Your task to perform on an android device: Open Google Chrome and click the shortcut for Amazon.com Image 0: 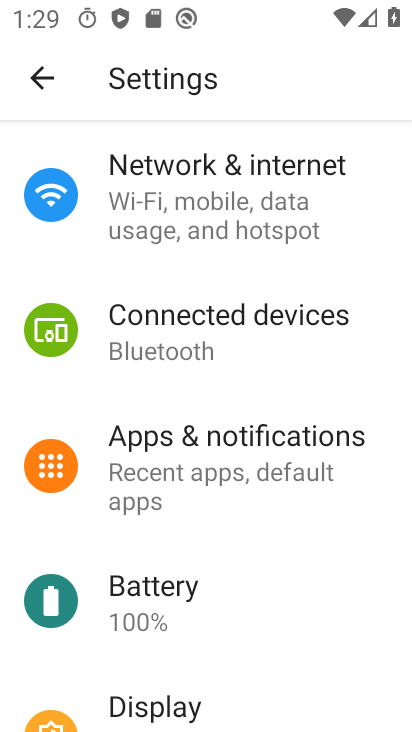
Step 0: press home button
Your task to perform on an android device: Open Google Chrome and click the shortcut for Amazon.com Image 1: 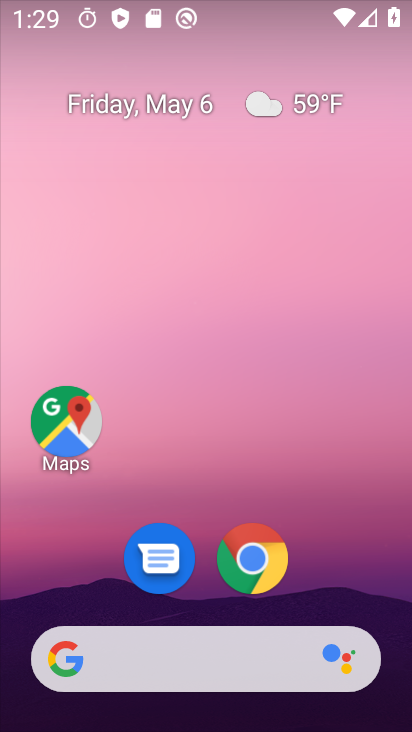
Step 1: click (254, 564)
Your task to perform on an android device: Open Google Chrome and click the shortcut for Amazon.com Image 2: 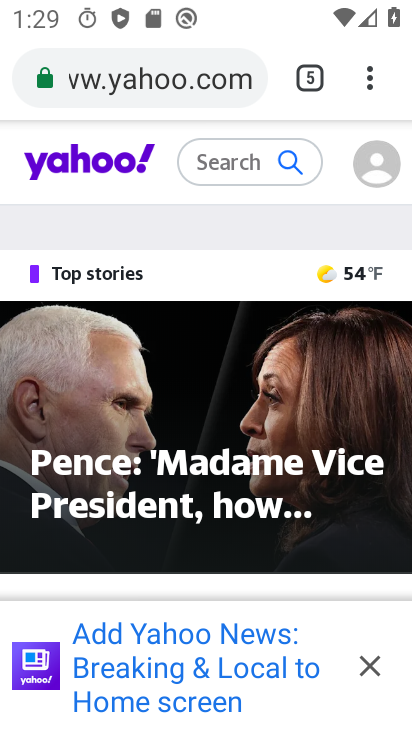
Step 2: drag from (372, 82) to (100, 150)
Your task to perform on an android device: Open Google Chrome and click the shortcut for Amazon.com Image 3: 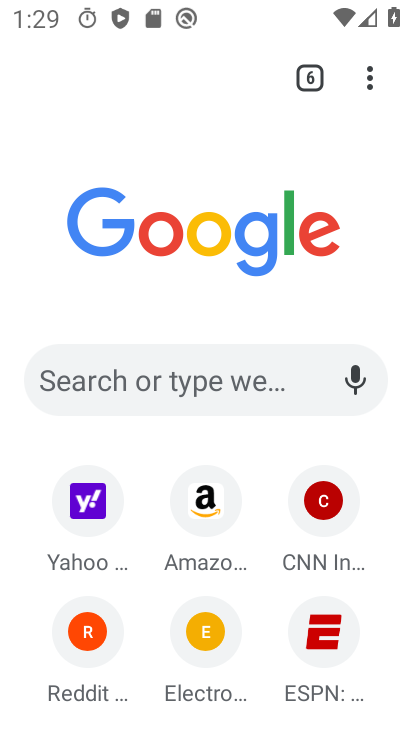
Step 3: click (198, 525)
Your task to perform on an android device: Open Google Chrome and click the shortcut for Amazon.com Image 4: 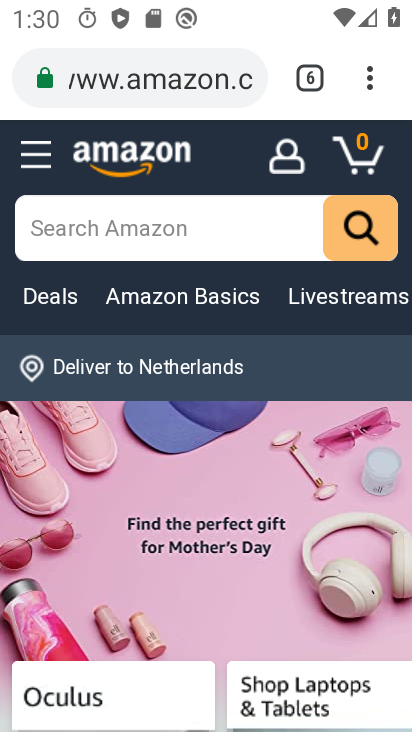
Step 4: task complete